Your task to perform on an android device: empty trash in the gmail app Image 0: 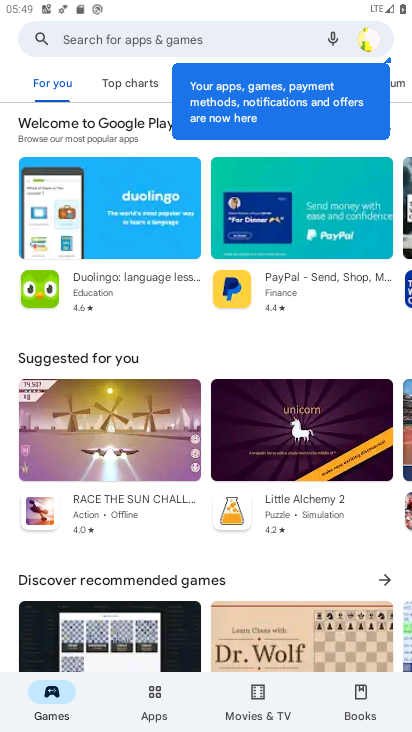
Step 0: press home button
Your task to perform on an android device: empty trash in the gmail app Image 1: 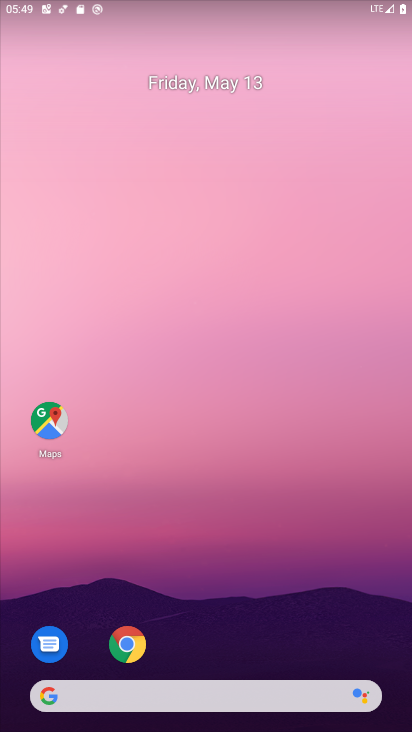
Step 1: drag from (209, 652) to (215, 16)
Your task to perform on an android device: empty trash in the gmail app Image 2: 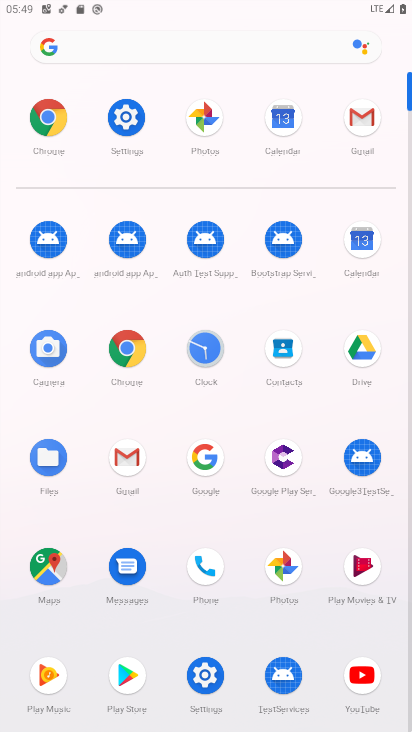
Step 2: click (137, 469)
Your task to perform on an android device: empty trash in the gmail app Image 3: 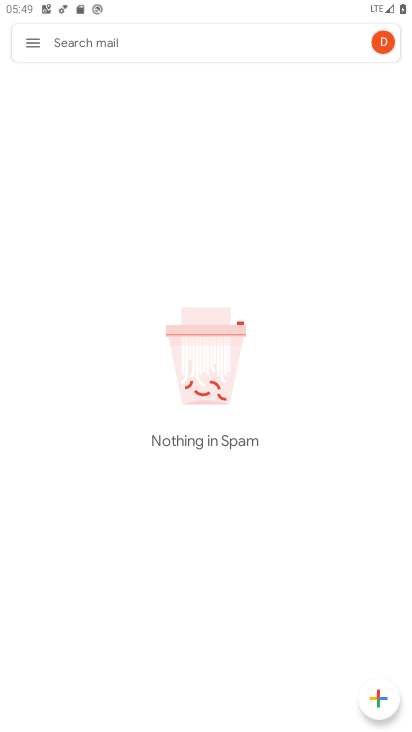
Step 3: click (39, 43)
Your task to perform on an android device: empty trash in the gmail app Image 4: 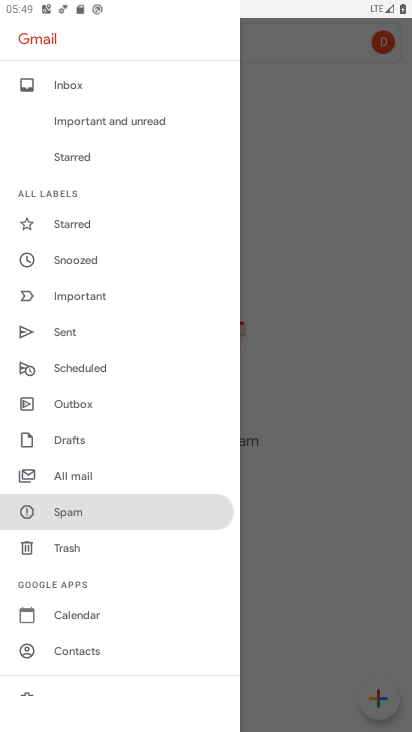
Step 4: click (74, 550)
Your task to perform on an android device: empty trash in the gmail app Image 5: 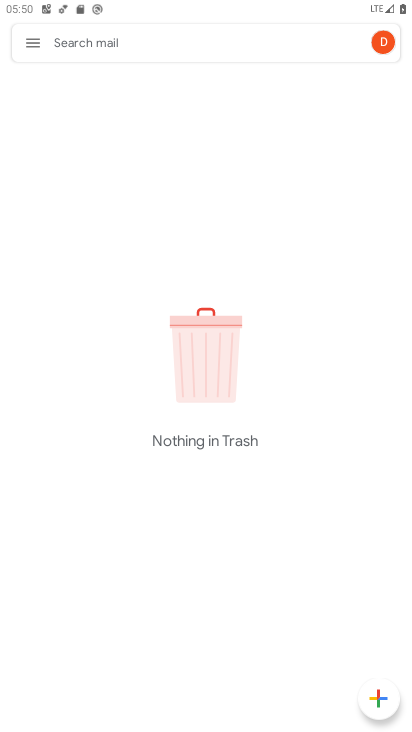
Step 5: task complete